Your task to perform on an android device: Open settings on Google Maps Image 0: 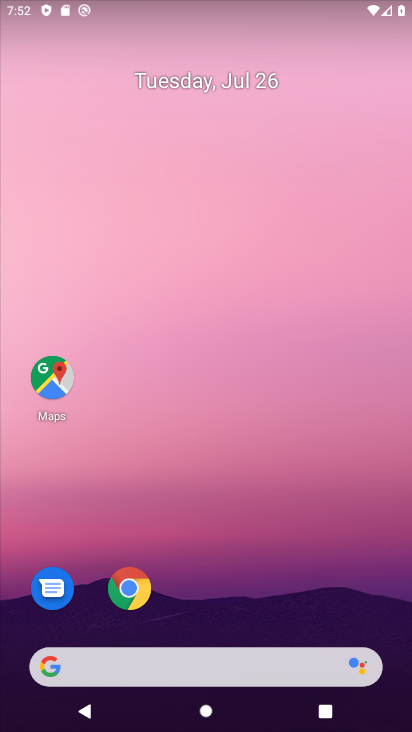
Step 0: click (36, 372)
Your task to perform on an android device: Open settings on Google Maps Image 1: 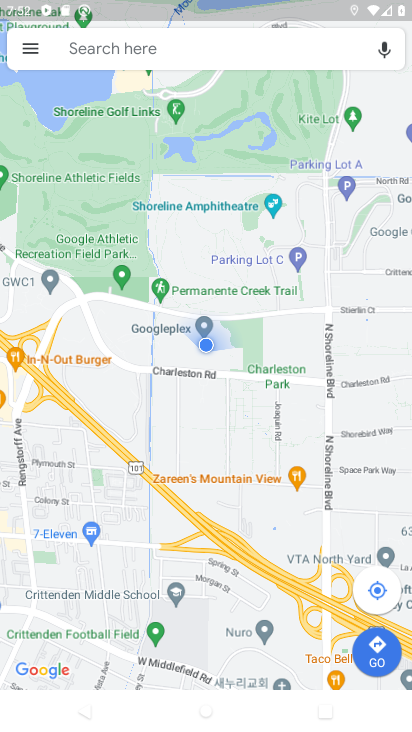
Step 1: click (30, 56)
Your task to perform on an android device: Open settings on Google Maps Image 2: 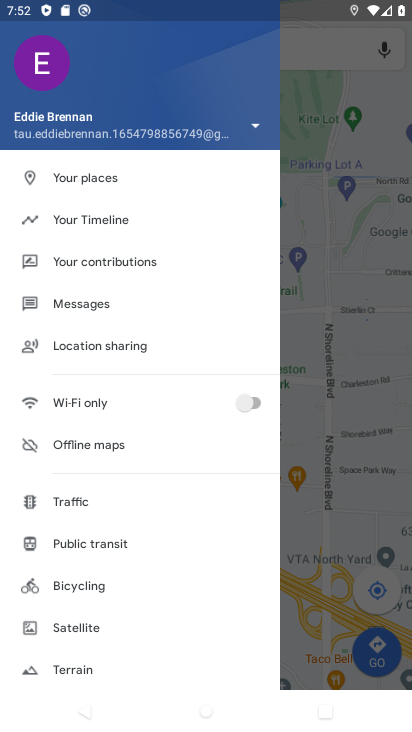
Step 2: drag from (75, 643) to (189, 203)
Your task to perform on an android device: Open settings on Google Maps Image 3: 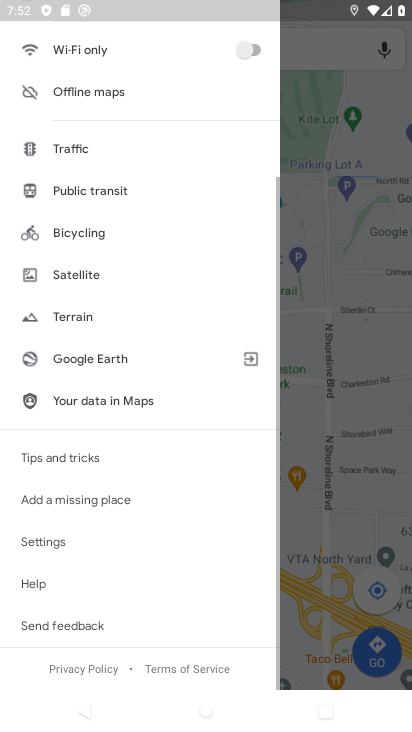
Step 3: click (37, 539)
Your task to perform on an android device: Open settings on Google Maps Image 4: 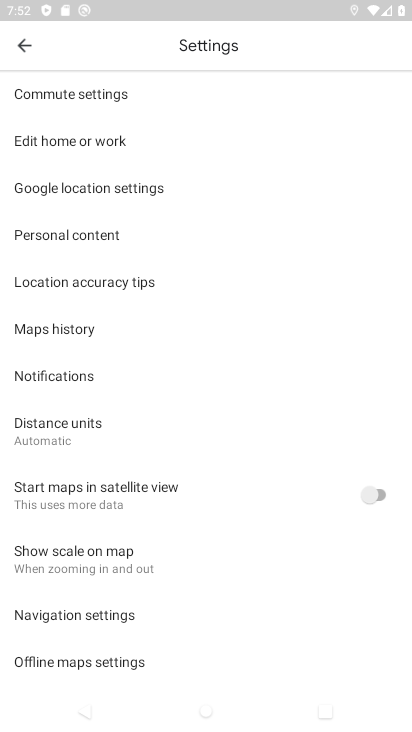
Step 4: task complete